Your task to perform on an android device: Go to privacy settings Image 0: 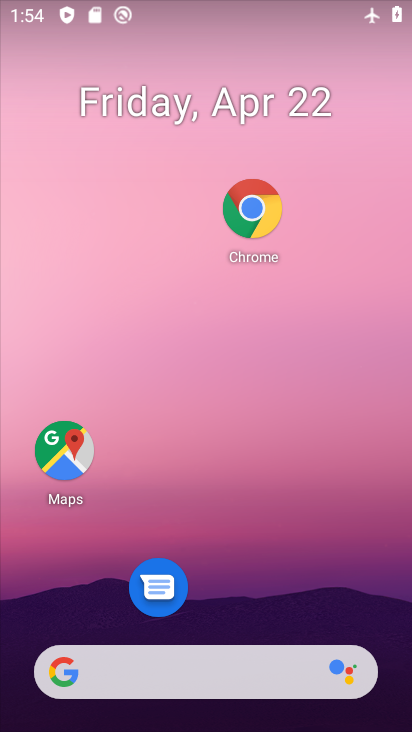
Step 0: drag from (233, 510) to (303, 208)
Your task to perform on an android device: Go to privacy settings Image 1: 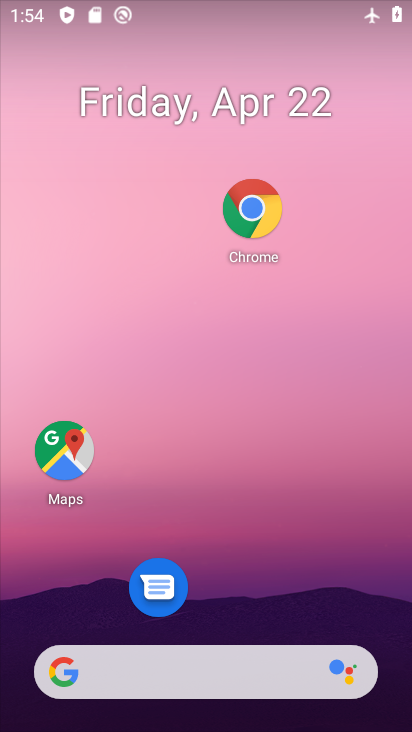
Step 1: drag from (226, 509) to (180, 40)
Your task to perform on an android device: Go to privacy settings Image 2: 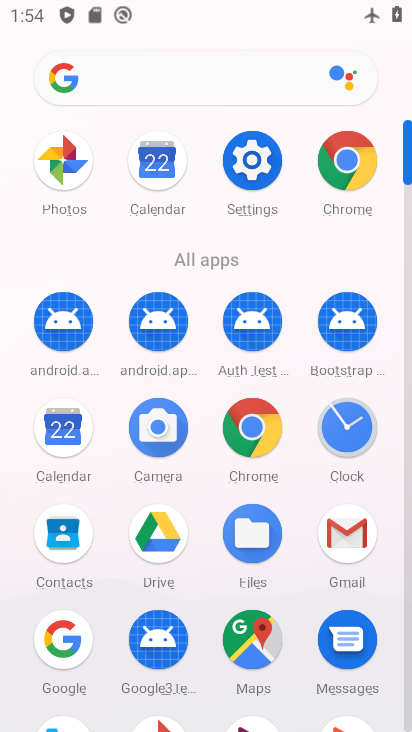
Step 2: click (255, 164)
Your task to perform on an android device: Go to privacy settings Image 3: 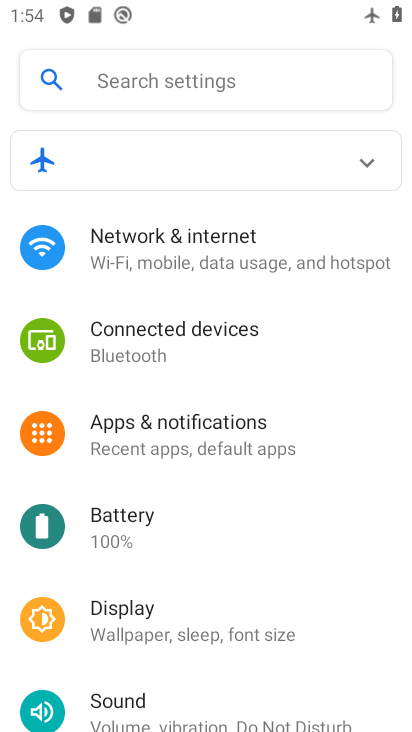
Step 3: drag from (238, 539) to (324, 51)
Your task to perform on an android device: Go to privacy settings Image 4: 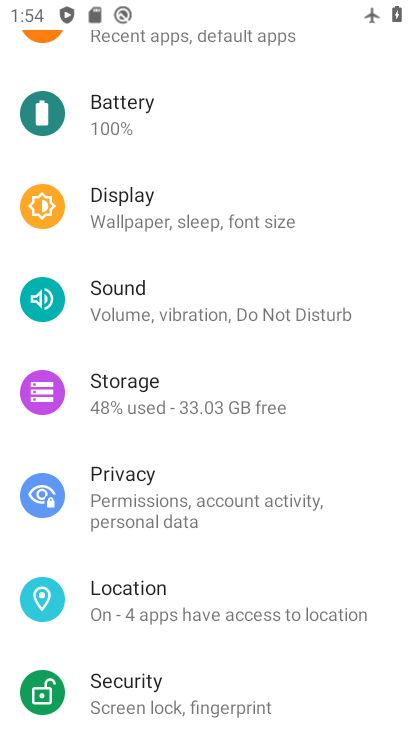
Step 4: click (160, 494)
Your task to perform on an android device: Go to privacy settings Image 5: 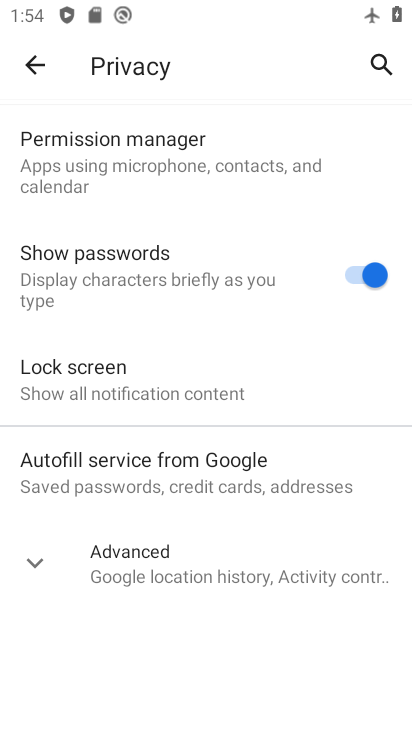
Step 5: task complete